Your task to perform on an android device: Go to settings Image 0: 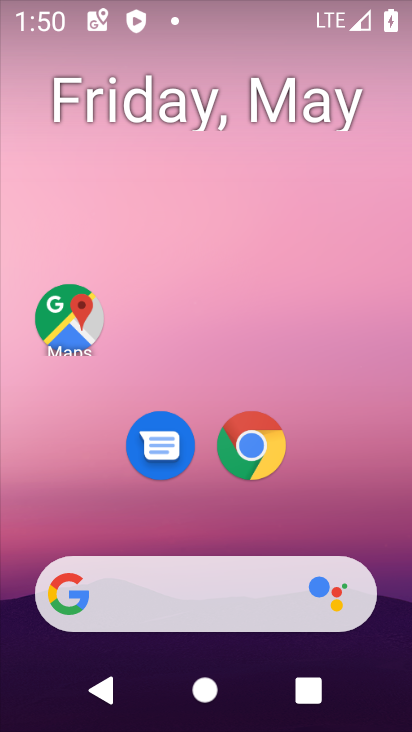
Step 0: drag from (204, 542) to (223, 105)
Your task to perform on an android device: Go to settings Image 1: 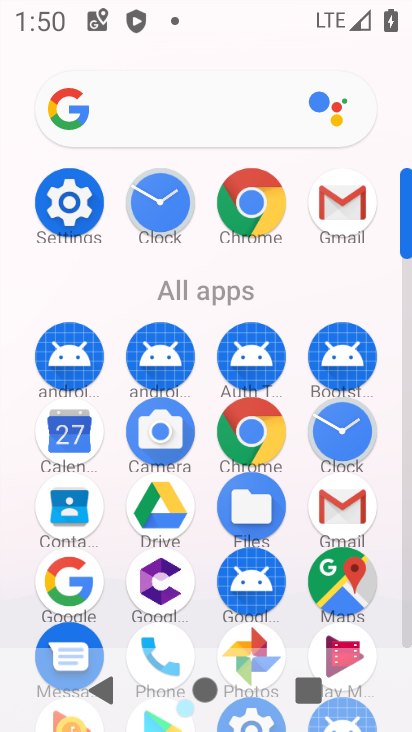
Step 1: click (66, 195)
Your task to perform on an android device: Go to settings Image 2: 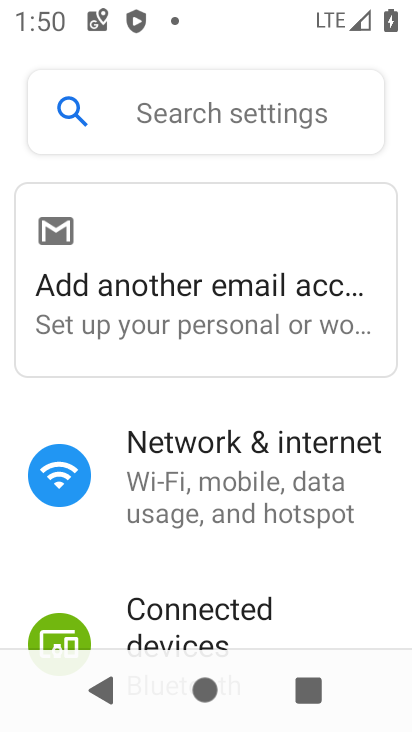
Step 2: press home button
Your task to perform on an android device: Go to settings Image 3: 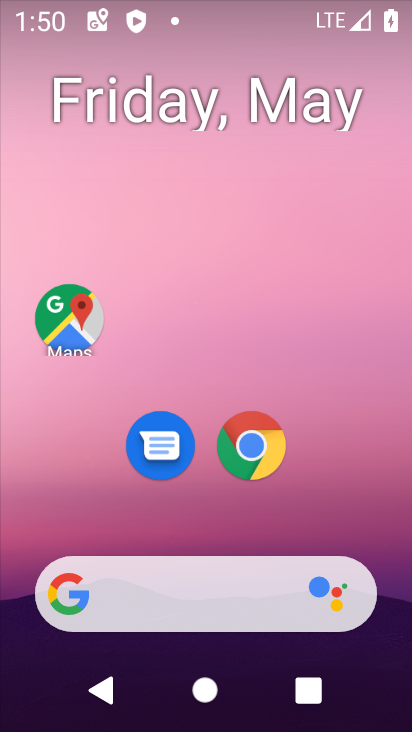
Step 3: drag from (212, 526) to (236, 37)
Your task to perform on an android device: Go to settings Image 4: 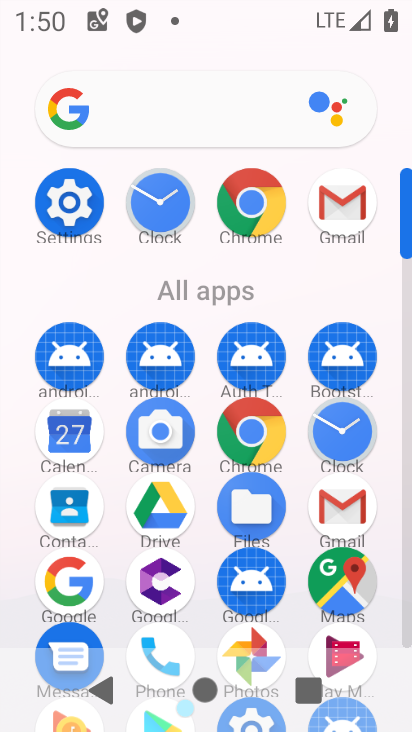
Step 4: click (68, 196)
Your task to perform on an android device: Go to settings Image 5: 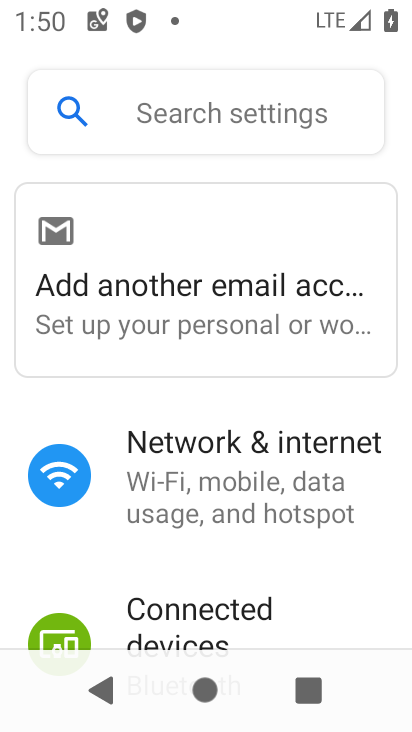
Step 5: drag from (224, 578) to (284, 178)
Your task to perform on an android device: Go to settings Image 6: 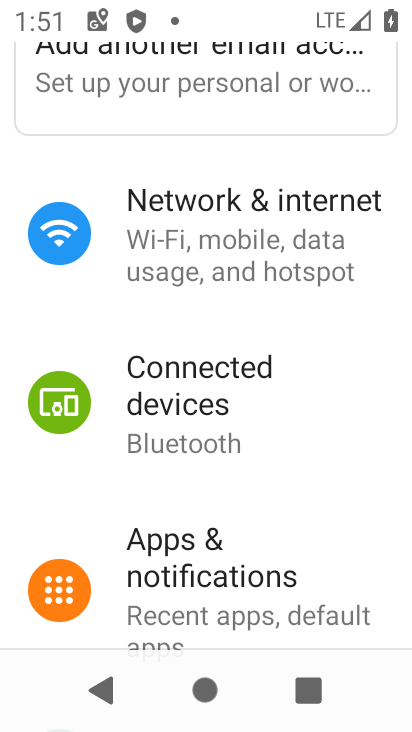
Step 6: drag from (257, 602) to (293, 251)
Your task to perform on an android device: Go to settings Image 7: 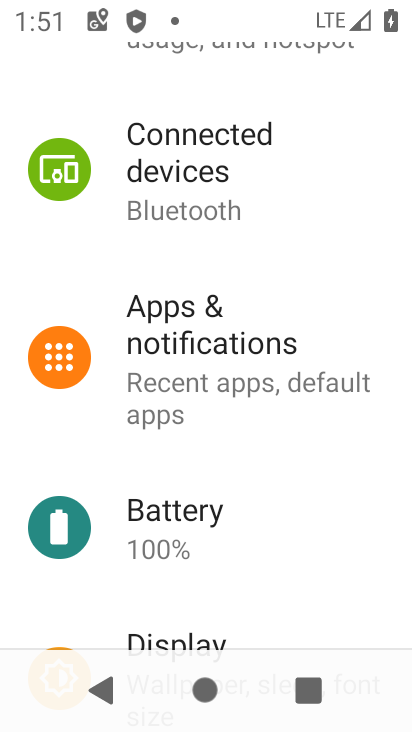
Step 7: drag from (242, 621) to (281, 120)
Your task to perform on an android device: Go to settings Image 8: 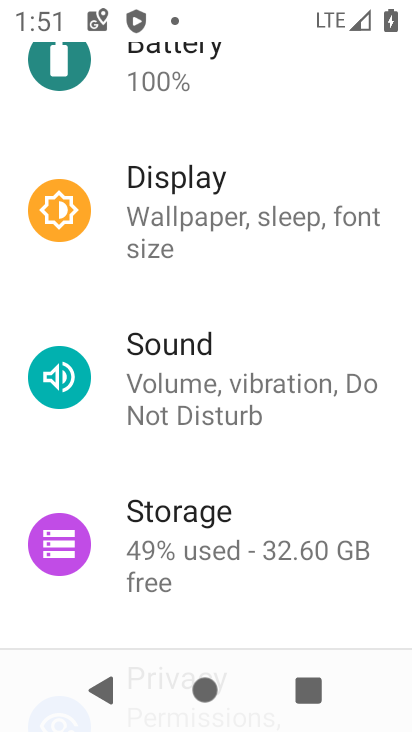
Step 8: drag from (268, 266) to (261, 111)
Your task to perform on an android device: Go to settings Image 9: 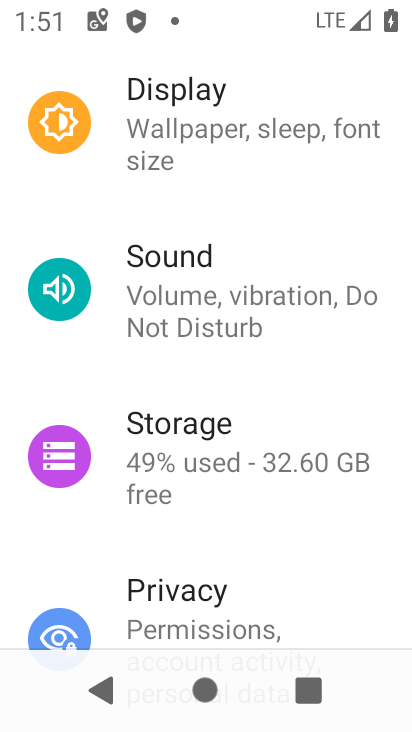
Step 9: drag from (255, 587) to (280, 179)
Your task to perform on an android device: Go to settings Image 10: 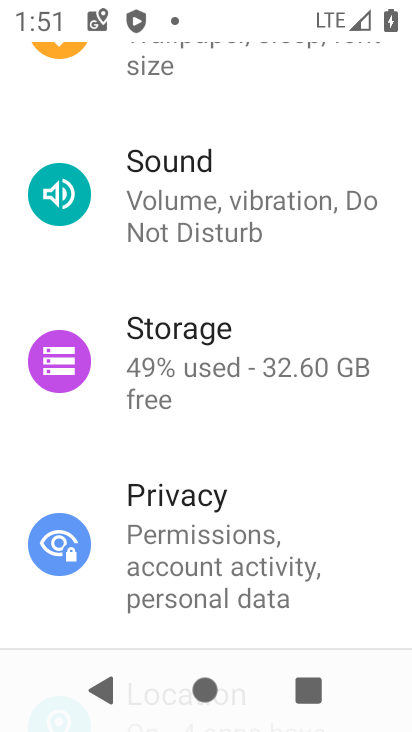
Step 10: drag from (270, 587) to (301, 96)
Your task to perform on an android device: Go to settings Image 11: 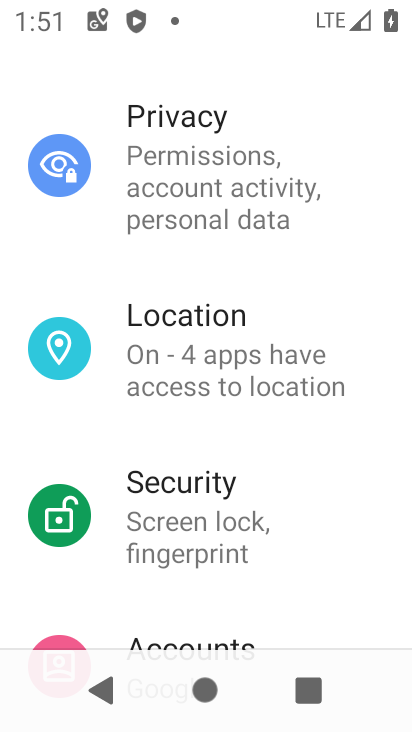
Step 11: drag from (227, 605) to (234, 180)
Your task to perform on an android device: Go to settings Image 12: 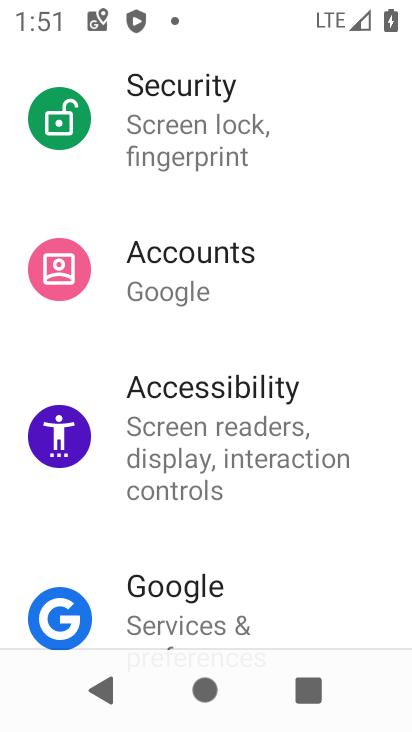
Step 12: click (243, 80)
Your task to perform on an android device: Go to settings Image 13: 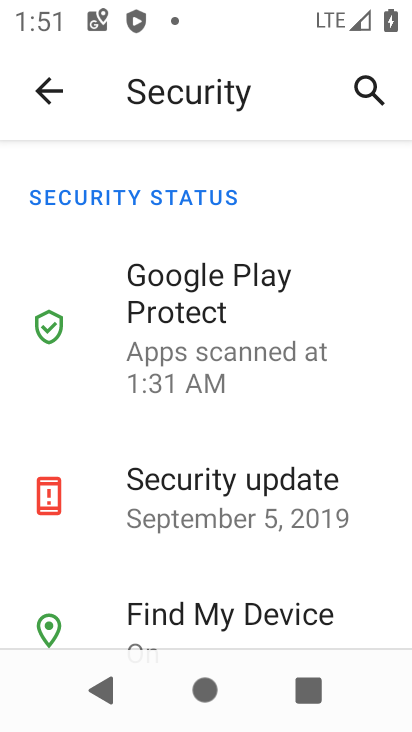
Step 13: task complete